Your task to perform on an android device: make emails show in primary in the gmail app Image 0: 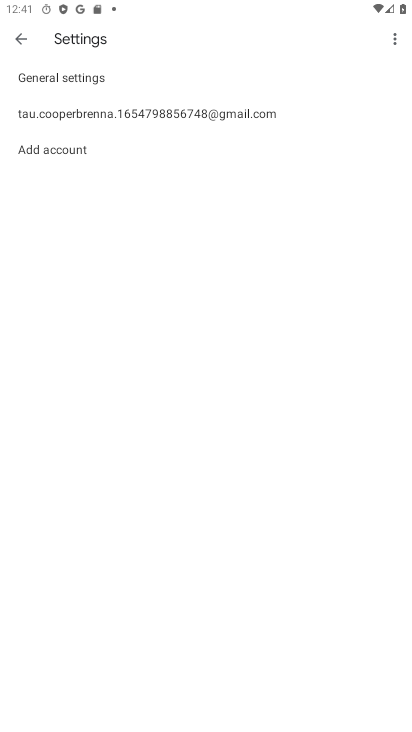
Step 0: drag from (182, 640) to (235, 123)
Your task to perform on an android device: make emails show in primary in the gmail app Image 1: 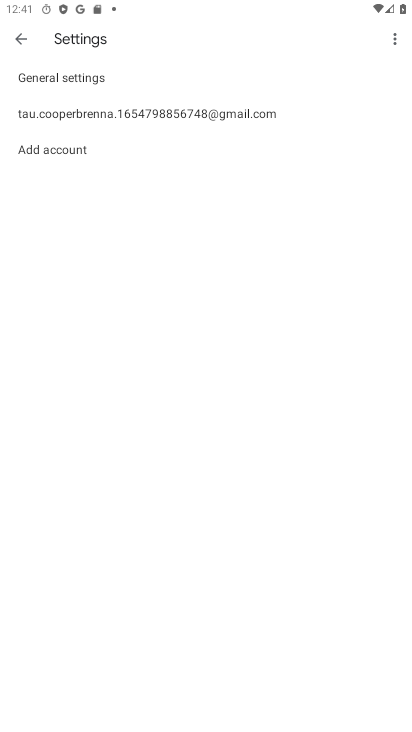
Step 1: press home button
Your task to perform on an android device: make emails show in primary in the gmail app Image 2: 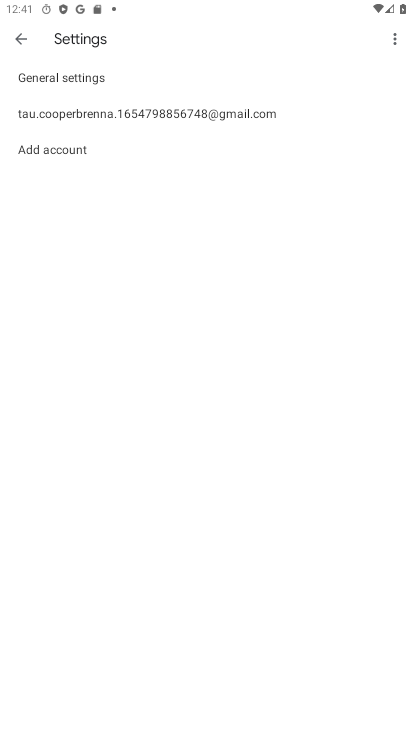
Step 2: press home button
Your task to perform on an android device: make emails show in primary in the gmail app Image 3: 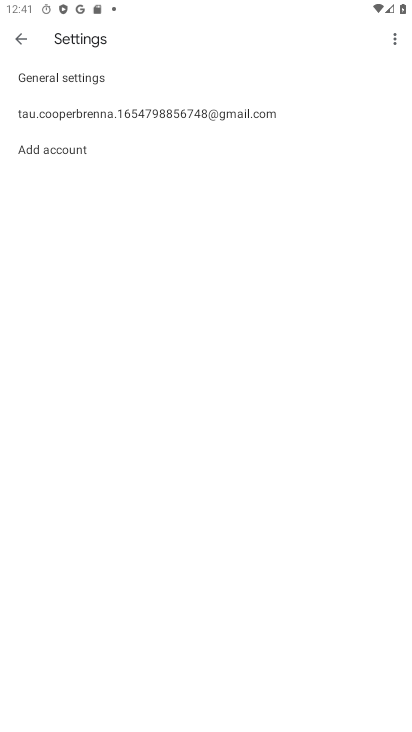
Step 3: drag from (235, 71) to (281, 4)
Your task to perform on an android device: make emails show in primary in the gmail app Image 4: 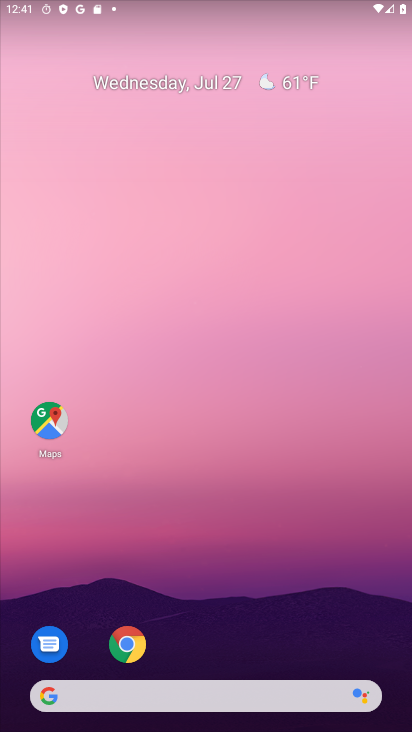
Step 4: drag from (191, 634) to (258, 57)
Your task to perform on an android device: make emails show in primary in the gmail app Image 5: 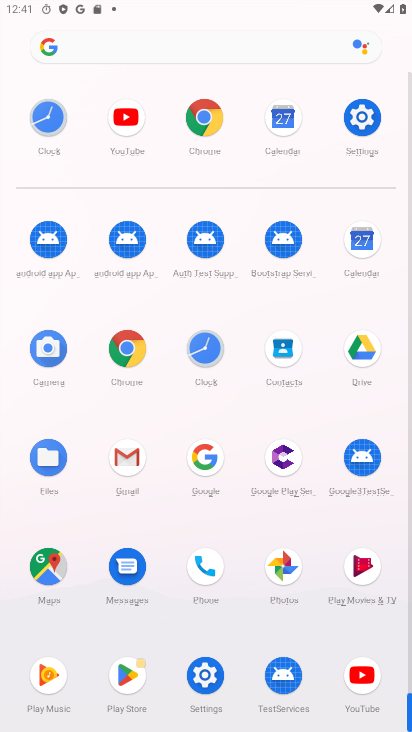
Step 5: click (112, 455)
Your task to perform on an android device: make emails show in primary in the gmail app Image 6: 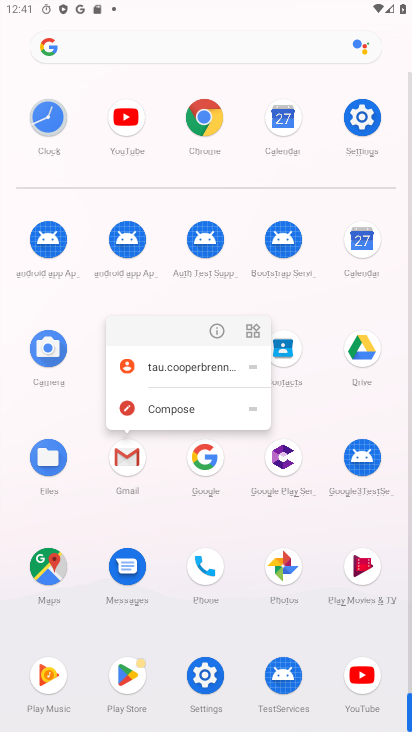
Step 6: click (220, 333)
Your task to perform on an android device: make emails show in primary in the gmail app Image 7: 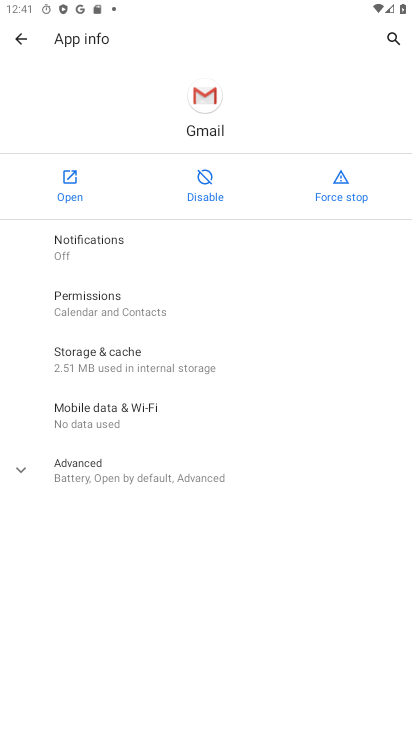
Step 7: click (68, 187)
Your task to perform on an android device: make emails show in primary in the gmail app Image 8: 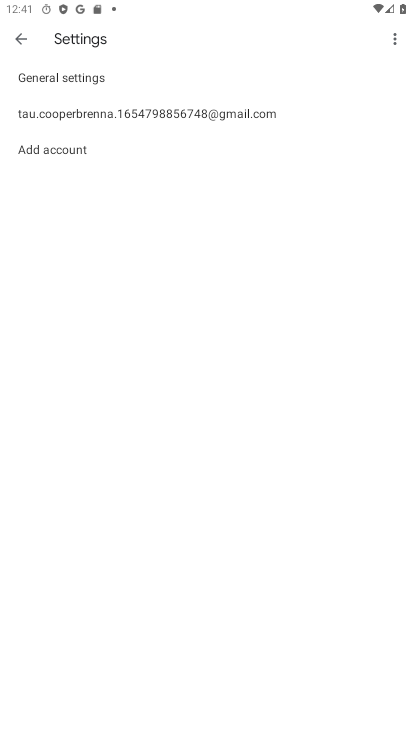
Step 8: click (192, 109)
Your task to perform on an android device: make emails show in primary in the gmail app Image 9: 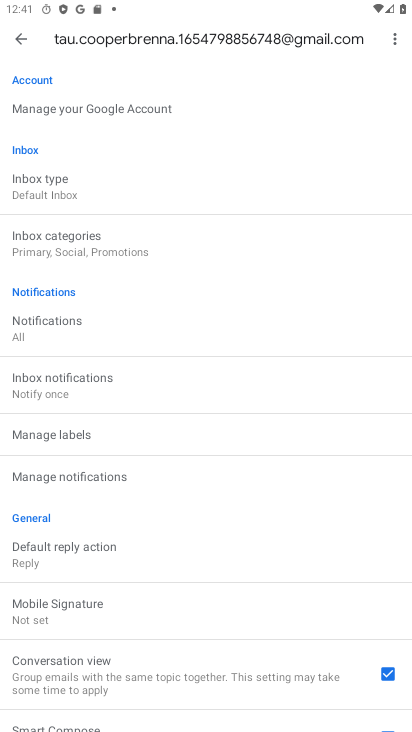
Step 9: press home button
Your task to perform on an android device: make emails show in primary in the gmail app Image 10: 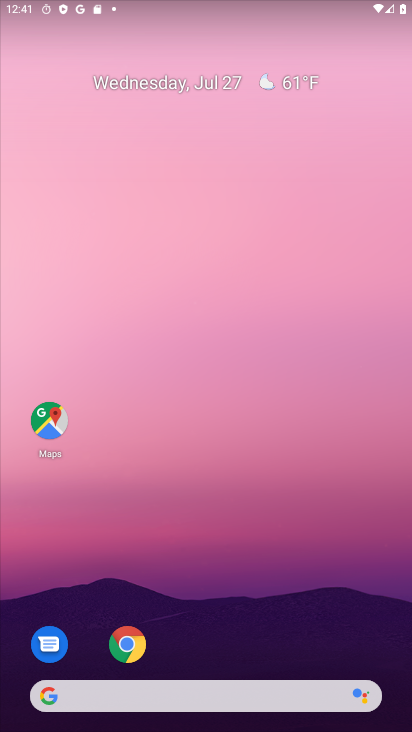
Step 10: drag from (255, 670) to (254, 146)
Your task to perform on an android device: make emails show in primary in the gmail app Image 11: 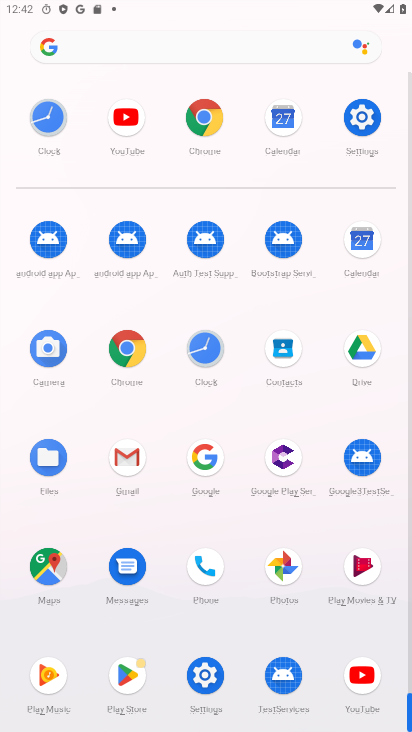
Step 11: click (123, 457)
Your task to perform on an android device: make emails show in primary in the gmail app Image 12: 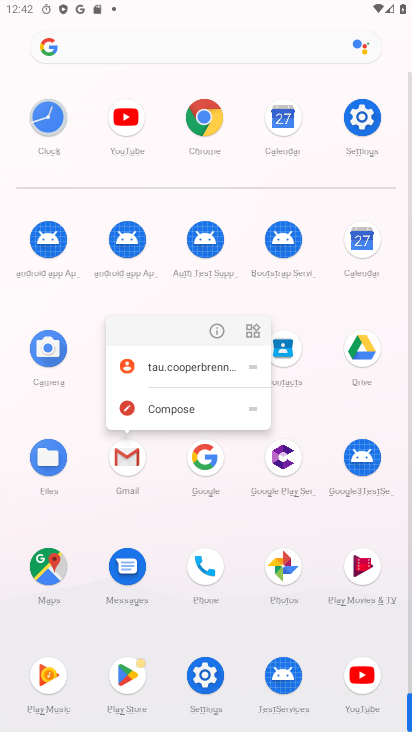
Step 12: click (210, 325)
Your task to perform on an android device: make emails show in primary in the gmail app Image 13: 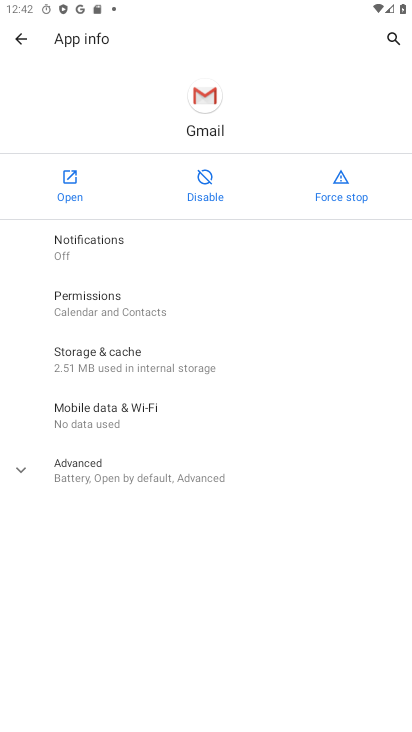
Step 13: click (68, 186)
Your task to perform on an android device: make emails show in primary in the gmail app Image 14: 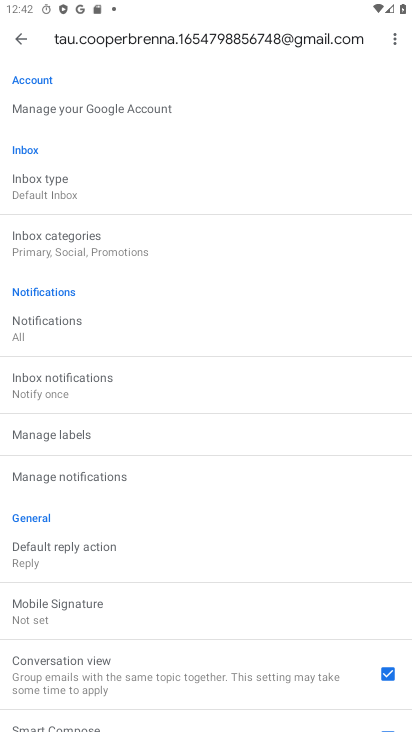
Step 14: click (14, 42)
Your task to perform on an android device: make emails show in primary in the gmail app Image 15: 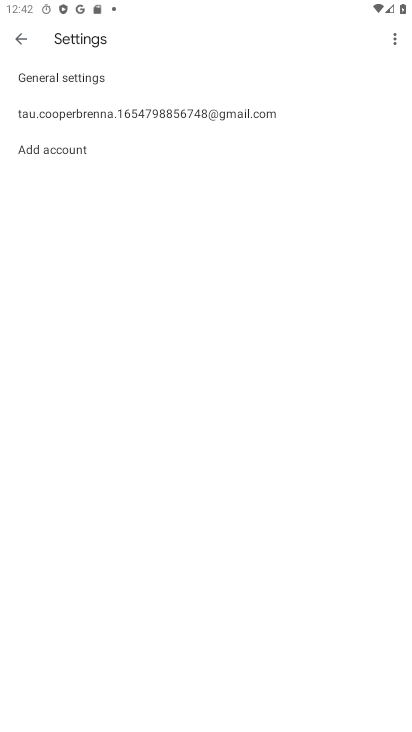
Step 15: click (32, 31)
Your task to perform on an android device: make emails show in primary in the gmail app Image 16: 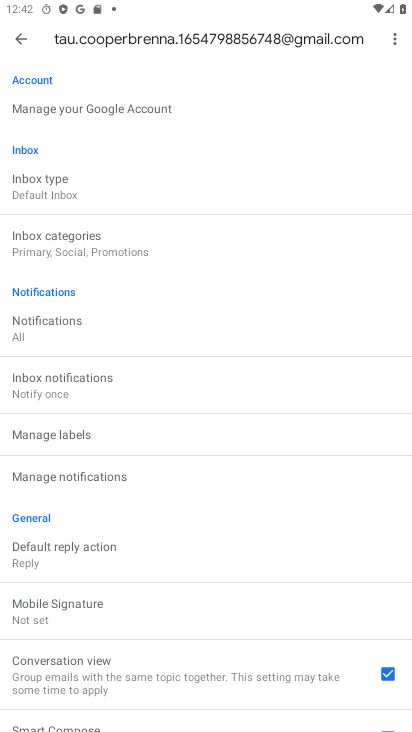
Step 16: click (21, 42)
Your task to perform on an android device: make emails show in primary in the gmail app Image 17: 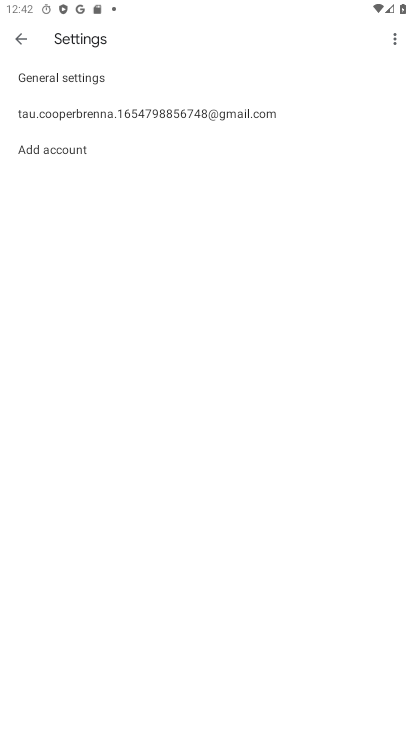
Step 17: click (20, 46)
Your task to perform on an android device: make emails show in primary in the gmail app Image 18: 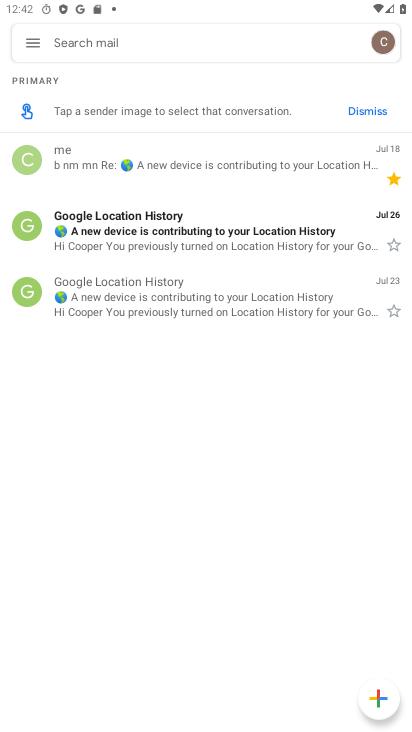
Step 18: click (30, 44)
Your task to perform on an android device: make emails show in primary in the gmail app Image 19: 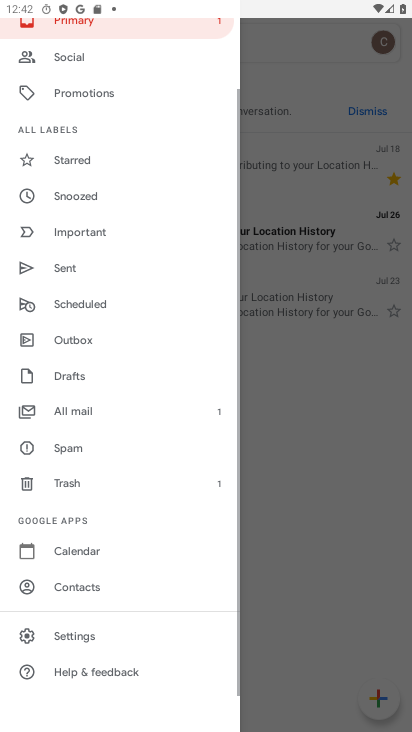
Step 19: drag from (90, 72) to (134, 539)
Your task to perform on an android device: make emails show in primary in the gmail app Image 20: 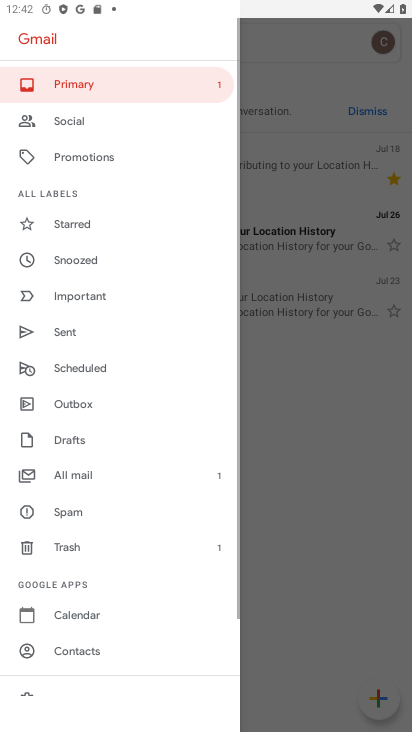
Step 20: click (86, 89)
Your task to perform on an android device: make emails show in primary in the gmail app Image 21: 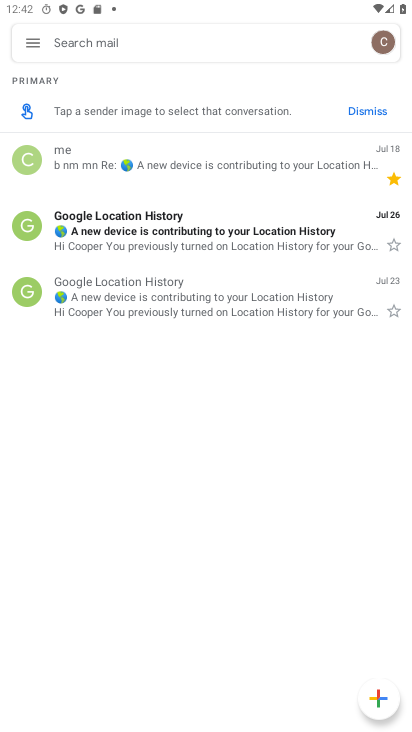
Step 21: task complete